Your task to perform on an android device: turn off picture-in-picture Image 0: 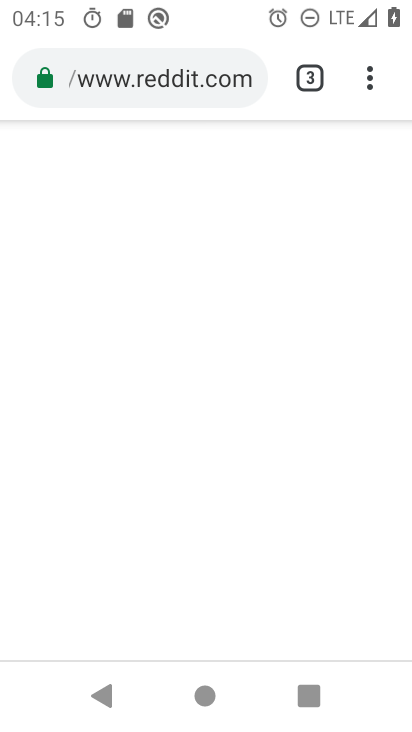
Step 0: press home button
Your task to perform on an android device: turn off picture-in-picture Image 1: 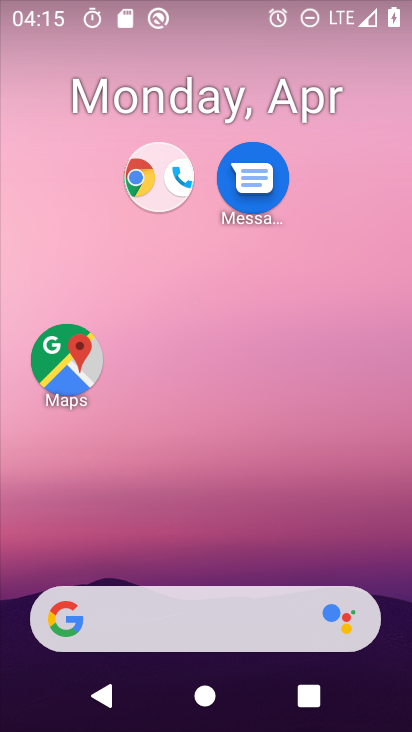
Step 1: drag from (280, 651) to (309, 0)
Your task to perform on an android device: turn off picture-in-picture Image 2: 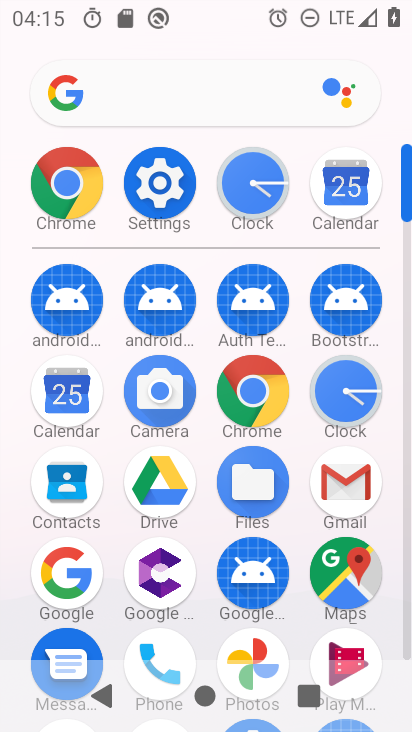
Step 2: click (132, 174)
Your task to perform on an android device: turn off picture-in-picture Image 3: 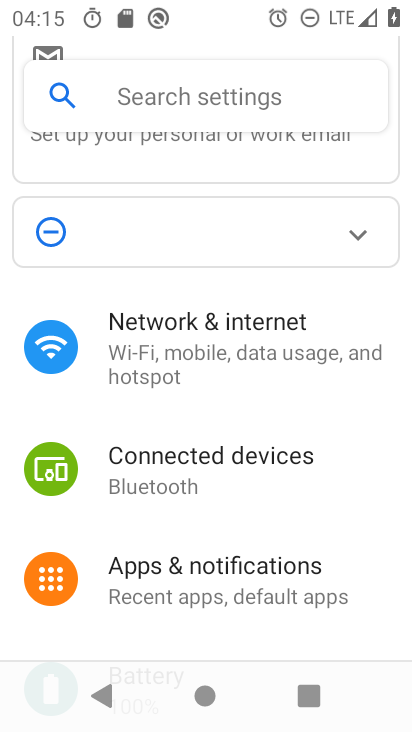
Step 3: drag from (203, 590) to (243, 117)
Your task to perform on an android device: turn off picture-in-picture Image 4: 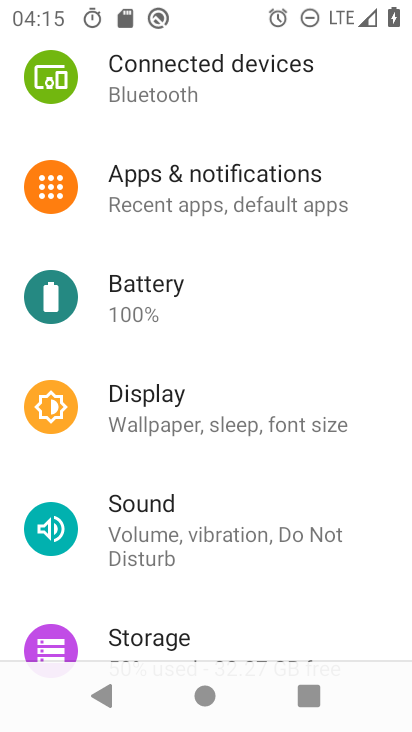
Step 4: drag from (258, 609) to (312, 77)
Your task to perform on an android device: turn off picture-in-picture Image 5: 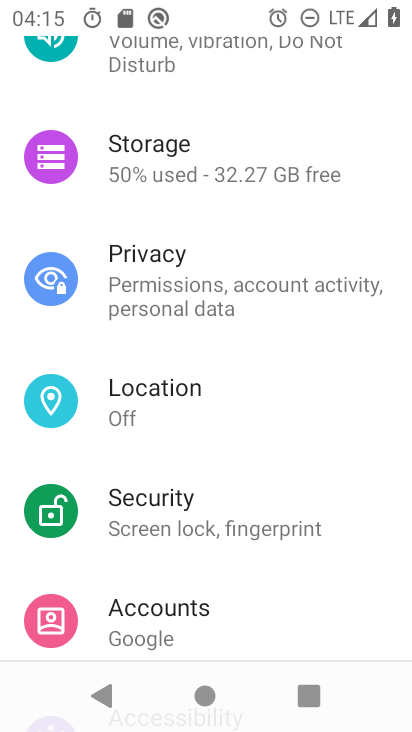
Step 5: drag from (245, 605) to (286, 115)
Your task to perform on an android device: turn off picture-in-picture Image 6: 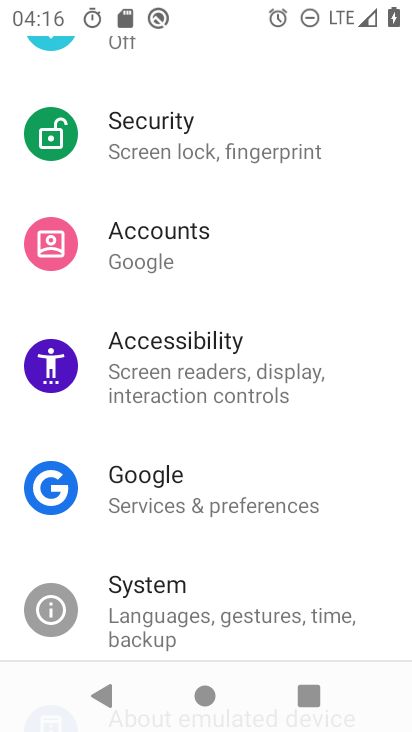
Step 6: drag from (172, 639) to (190, 88)
Your task to perform on an android device: turn off picture-in-picture Image 7: 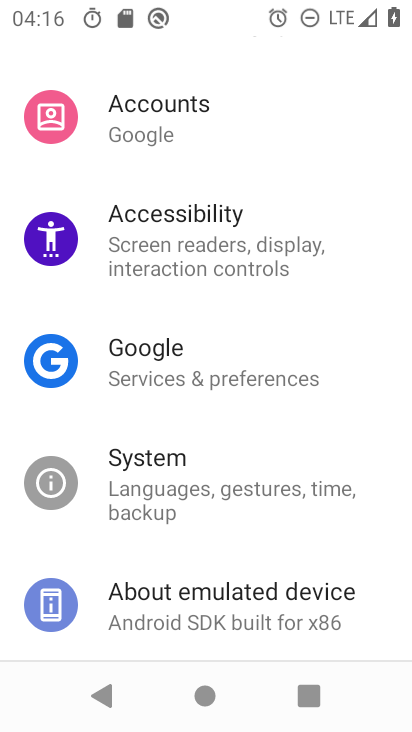
Step 7: drag from (203, 154) to (227, 717)
Your task to perform on an android device: turn off picture-in-picture Image 8: 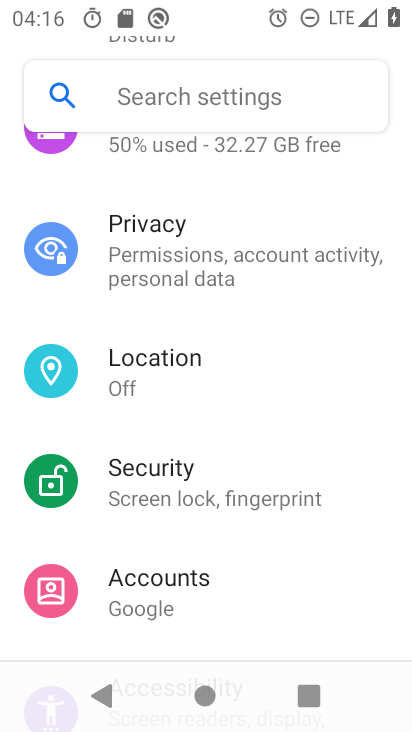
Step 8: drag from (268, 239) to (260, 625)
Your task to perform on an android device: turn off picture-in-picture Image 9: 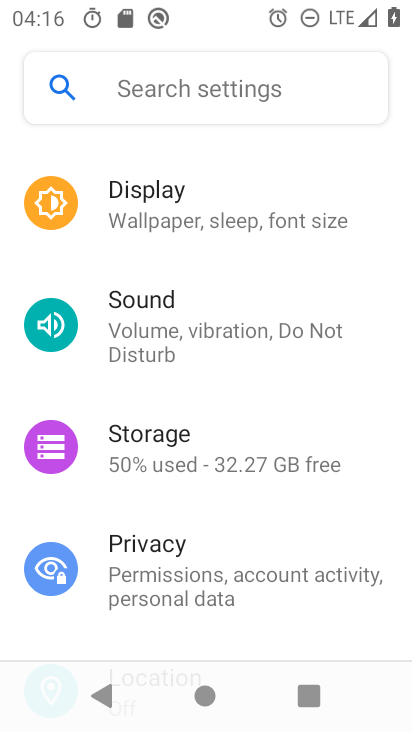
Step 9: drag from (278, 235) to (253, 612)
Your task to perform on an android device: turn off picture-in-picture Image 10: 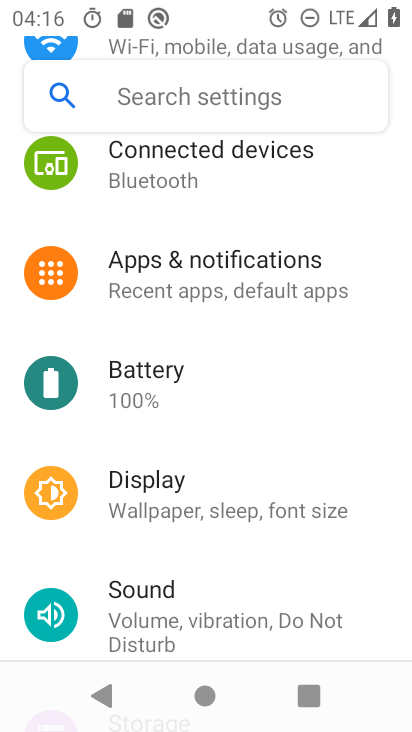
Step 10: click (261, 289)
Your task to perform on an android device: turn off picture-in-picture Image 11: 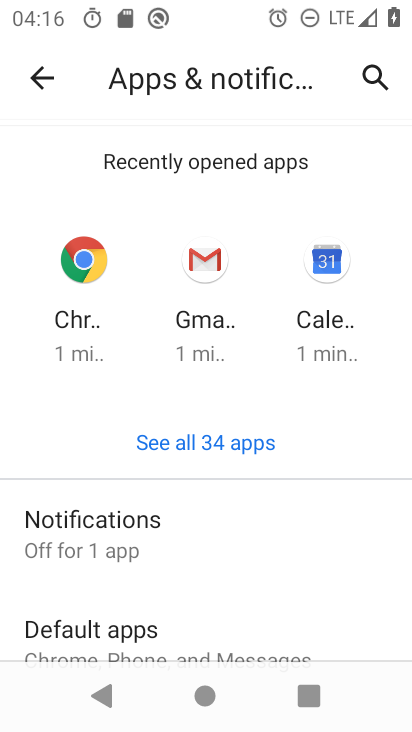
Step 11: drag from (204, 597) to (209, 32)
Your task to perform on an android device: turn off picture-in-picture Image 12: 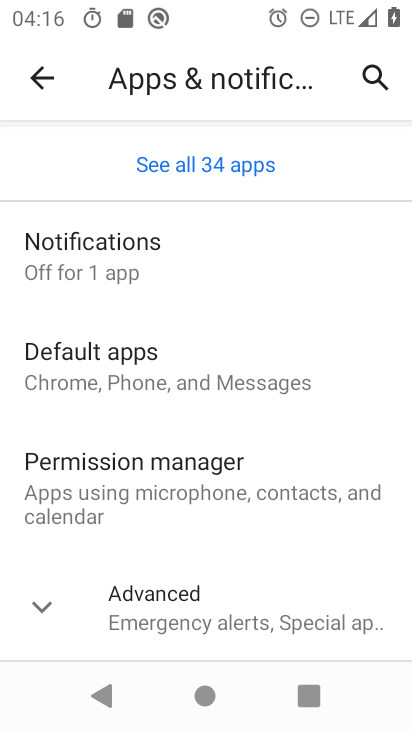
Step 12: click (233, 616)
Your task to perform on an android device: turn off picture-in-picture Image 13: 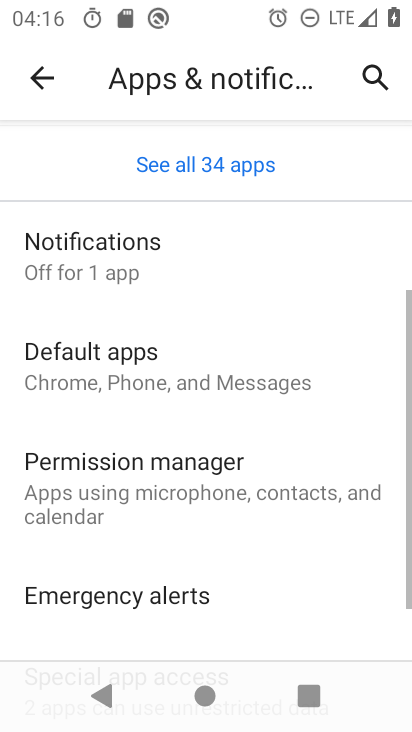
Step 13: drag from (233, 616) to (215, 145)
Your task to perform on an android device: turn off picture-in-picture Image 14: 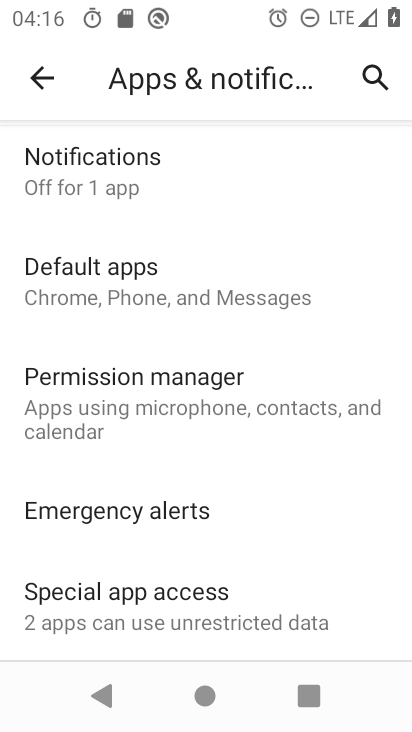
Step 14: click (256, 610)
Your task to perform on an android device: turn off picture-in-picture Image 15: 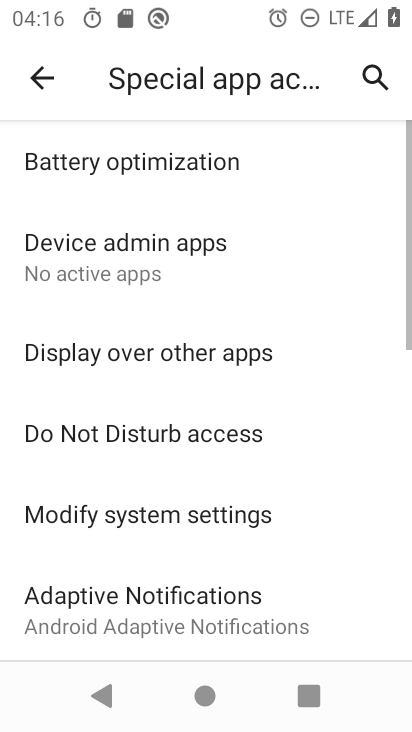
Step 15: drag from (256, 603) to (221, 81)
Your task to perform on an android device: turn off picture-in-picture Image 16: 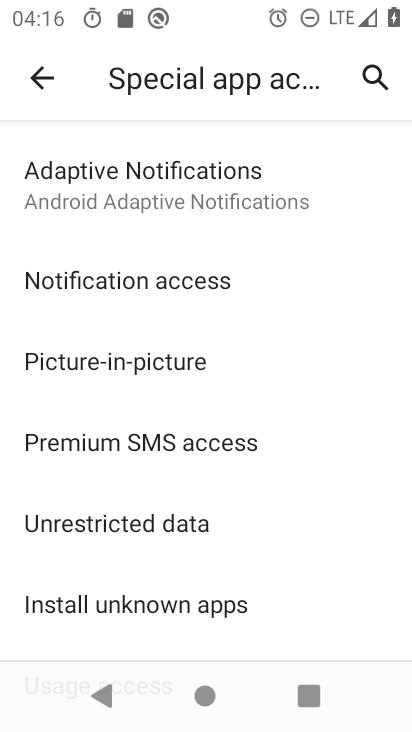
Step 16: click (183, 364)
Your task to perform on an android device: turn off picture-in-picture Image 17: 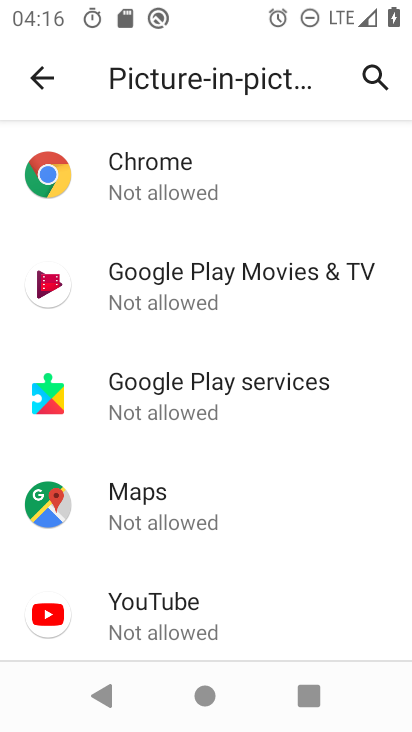
Step 17: task complete